Your task to perform on an android device: open a bookmark in the chrome app Image 0: 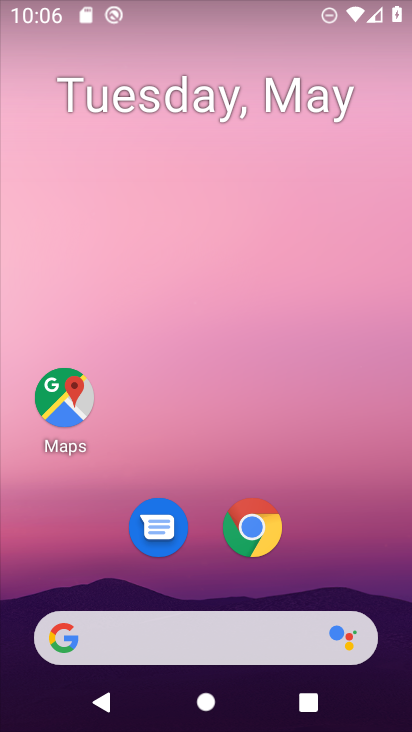
Step 0: click (255, 531)
Your task to perform on an android device: open a bookmark in the chrome app Image 1: 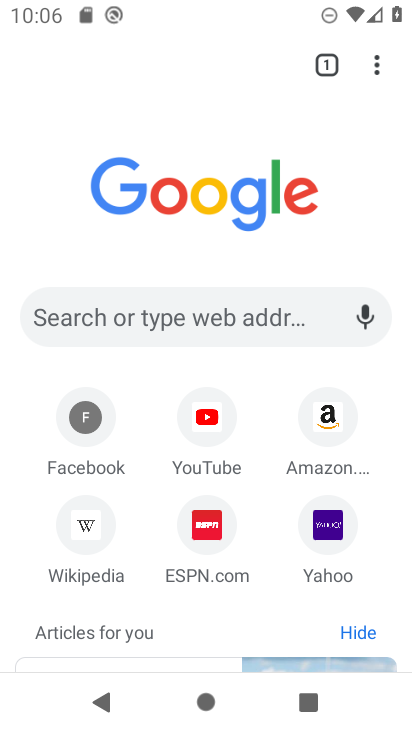
Step 1: click (379, 71)
Your task to perform on an android device: open a bookmark in the chrome app Image 2: 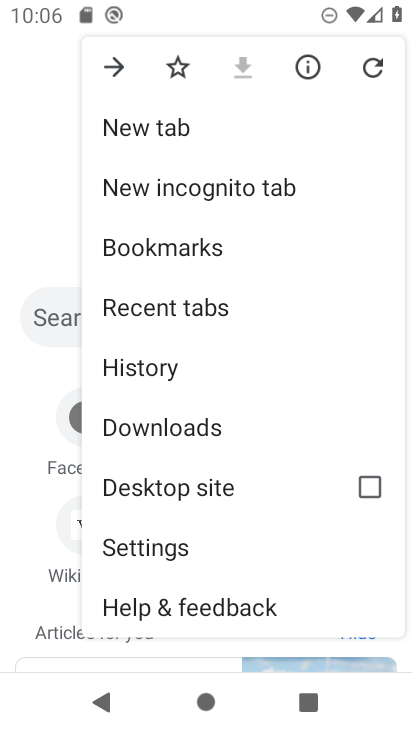
Step 2: click (203, 253)
Your task to perform on an android device: open a bookmark in the chrome app Image 3: 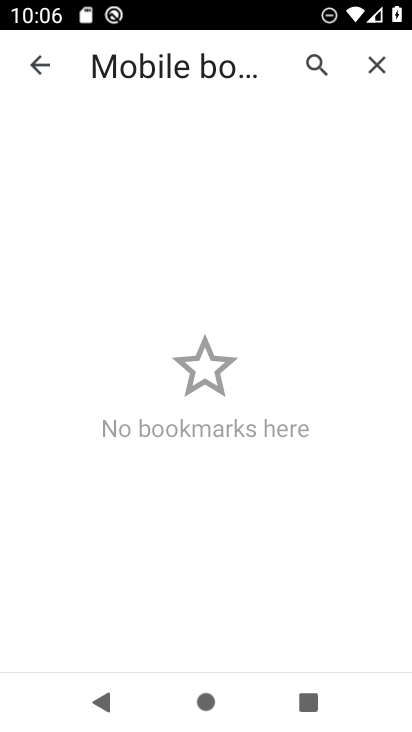
Step 3: task complete